Your task to perform on an android device: choose inbox layout in the gmail app Image 0: 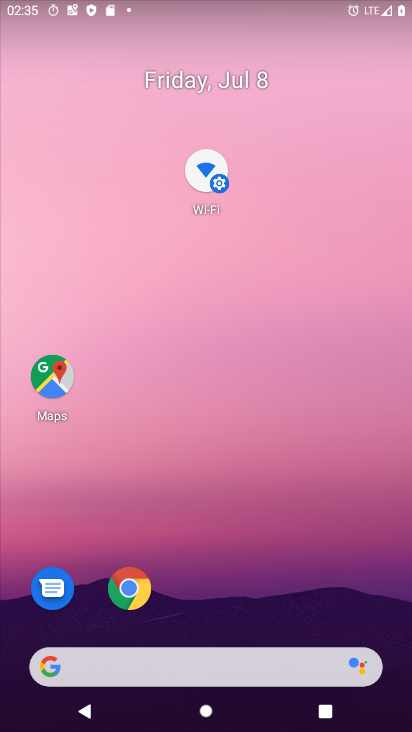
Step 0: drag from (170, 625) to (193, 176)
Your task to perform on an android device: choose inbox layout in the gmail app Image 1: 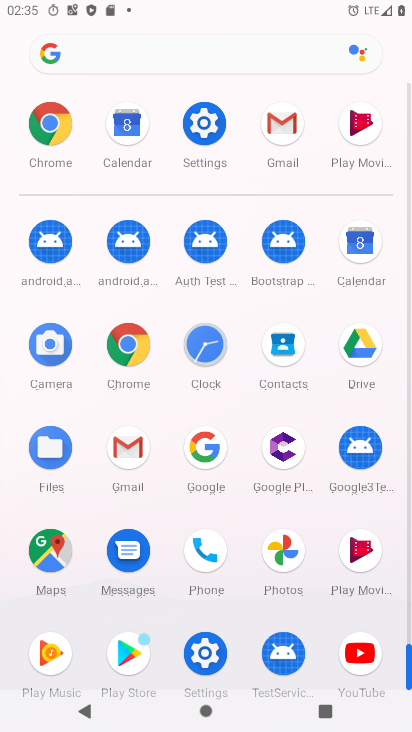
Step 1: click (137, 432)
Your task to perform on an android device: choose inbox layout in the gmail app Image 2: 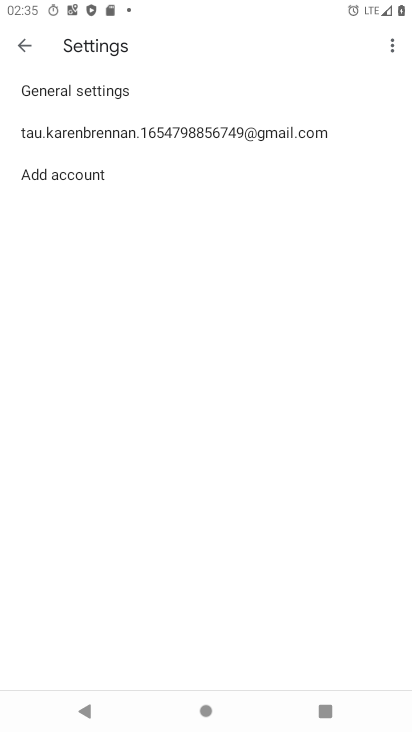
Step 2: click (110, 145)
Your task to perform on an android device: choose inbox layout in the gmail app Image 3: 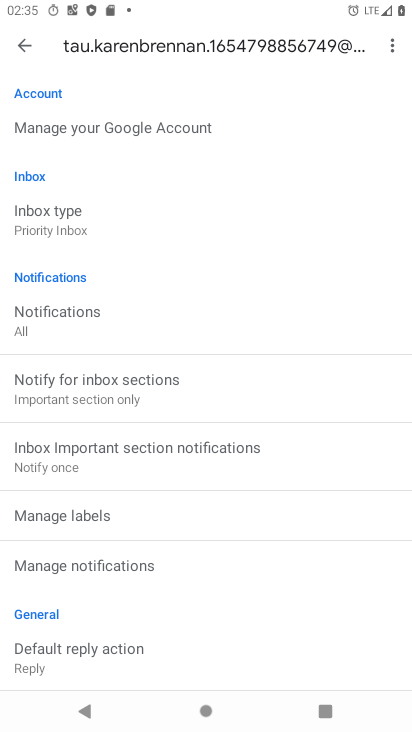
Step 3: drag from (237, 588) to (237, 337)
Your task to perform on an android device: choose inbox layout in the gmail app Image 4: 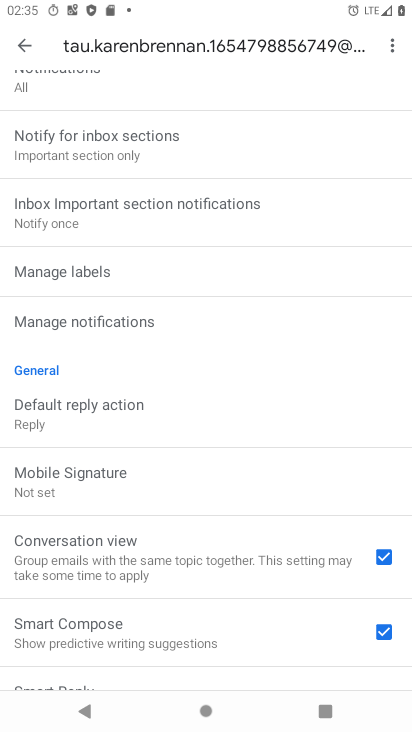
Step 4: drag from (230, 584) to (256, 407)
Your task to perform on an android device: choose inbox layout in the gmail app Image 5: 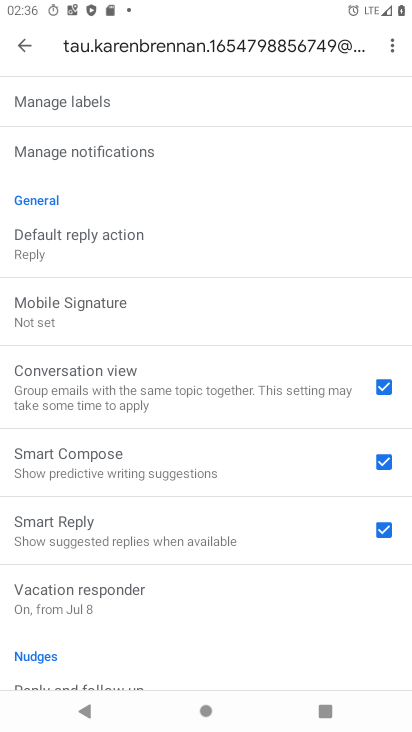
Step 5: drag from (306, 613) to (289, 351)
Your task to perform on an android device: choose inbox layout in the gmail app Image 6: 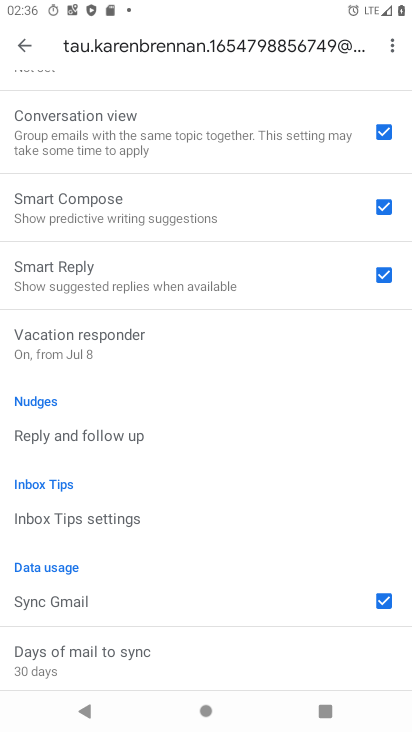
Step 6: drag from (238, 213) to (382, 646)
Your task to perform on an android device: choose inbox layout in the gmail app Image 7: 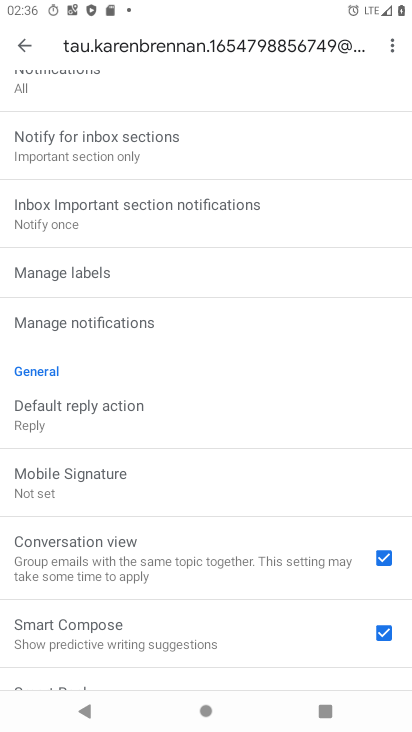
Step 7: drag from (291, 563) to (240, 303)
Your task to perform on an android device: choose inbox layout in the gmail app Image 8: 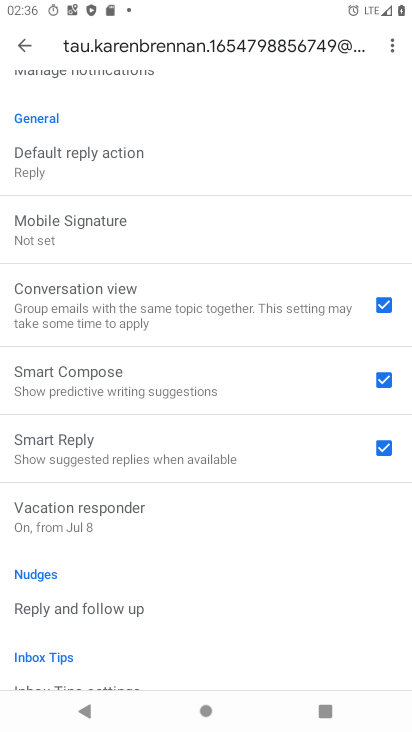
Step 8: drag from (178, 242) to (309, 571)
Your task to perform on an android device: choose inbox layout in the gmail app Image 9: 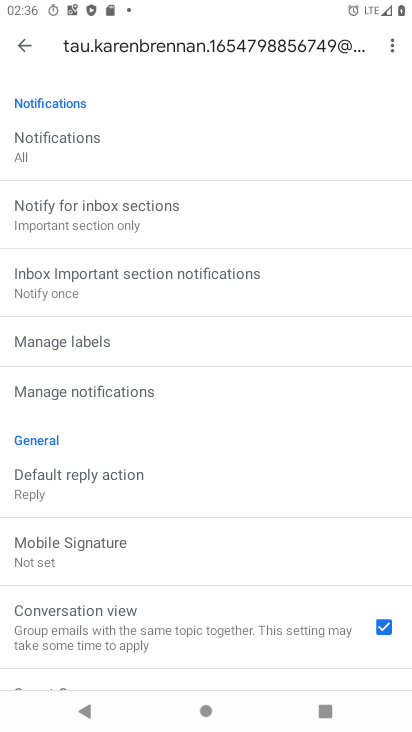
Step 9: drag from (108, 143) to (359, 670)
Your task to perform on an android device: choose inbox layout in the gmail app Image 10: 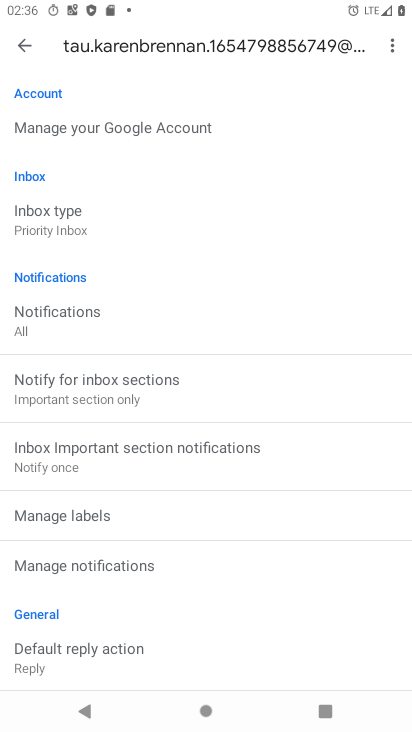
Step 10: click (46, 216)
Your task to perform on an android device: choose inbox layout in the gmail app Image 11: 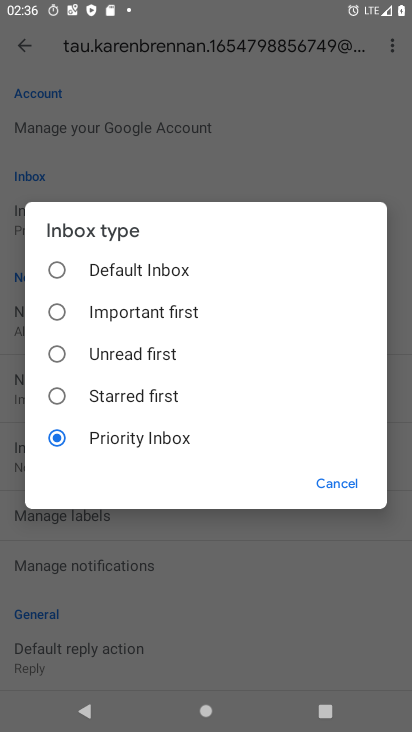
Step 11: click (351, 495)
Your task to perform on an android device: choose inbox layout in the gmail app Image 12: 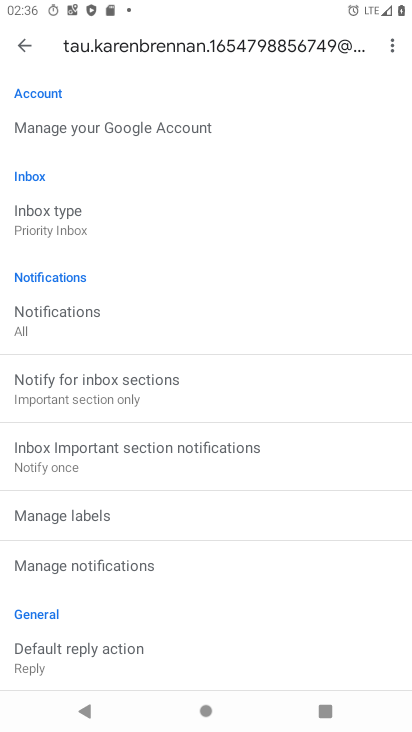
Step 12: click (25, 44)
Your task to perform on an android device: choose inbox layout in the gmail app Image 13: 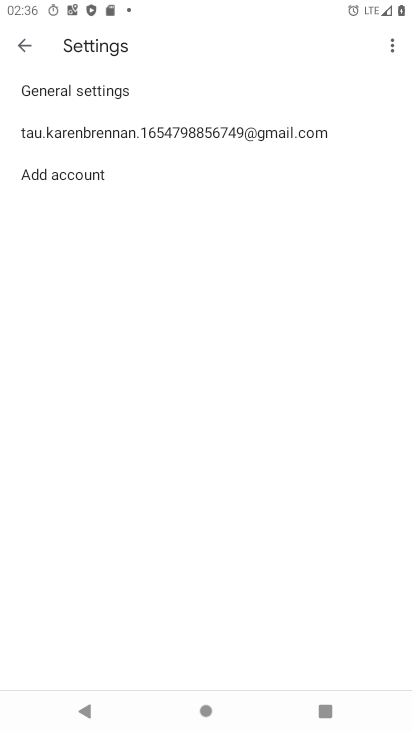
Step 13: click (25, 44)
Your task to perform on an android device: choose inbox layout in the gmail app Image 14: 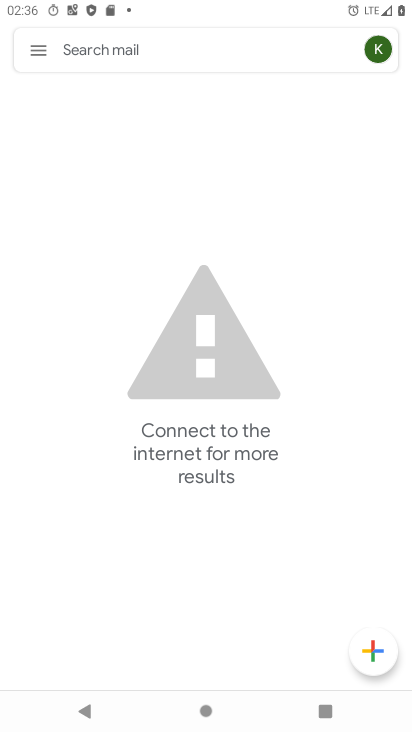
Step 14: click (29, 53)
Your task to perform on an android device: choose inbox layout in the gmail app Image 15: 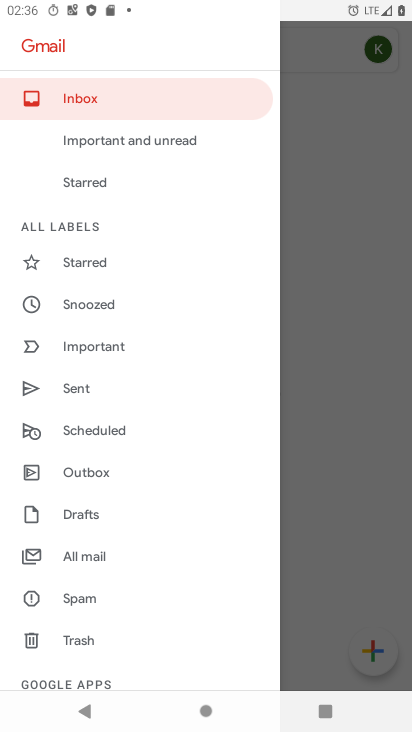
Step 15: click (63, 90)
Your task to perform on an android device: choose inbox layout in the gmail app Image 16: 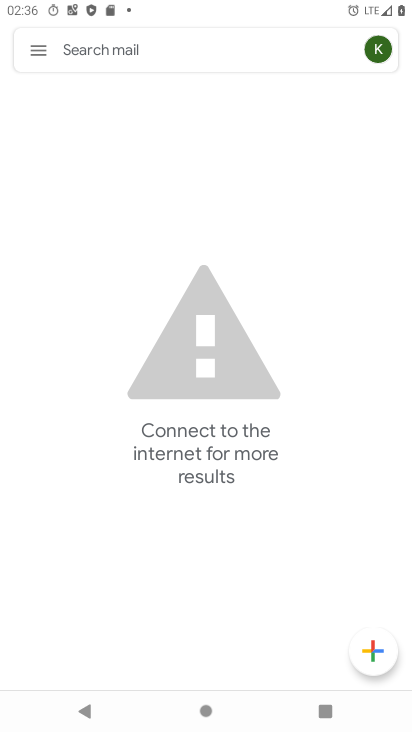
Step 16: click (322, 216)
Your task to perform on an android device: choose inbox layout in the gmail app Image 17: 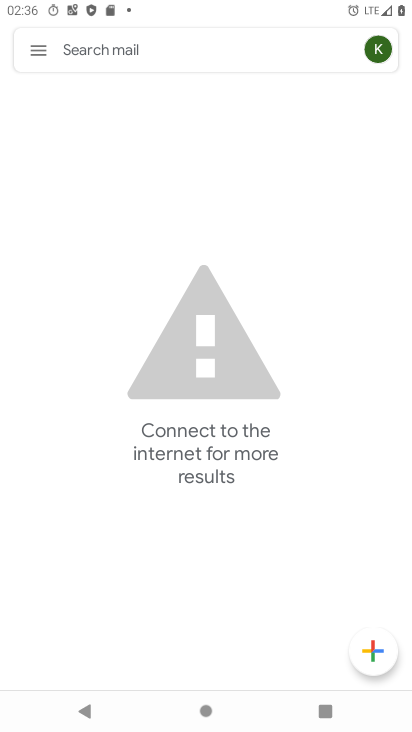
Step 17: task complete